Your task to perform on an android device: toggle improve location accuracy Image 0: 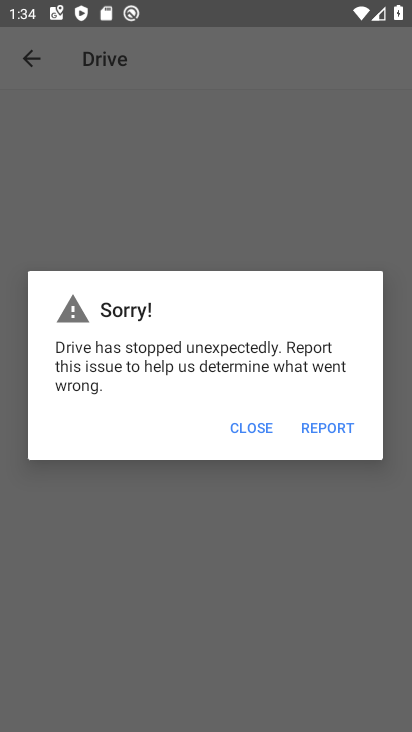
Step 0: press home button
Your task to perform on an android device: toggle improve location accuracy Image 1: 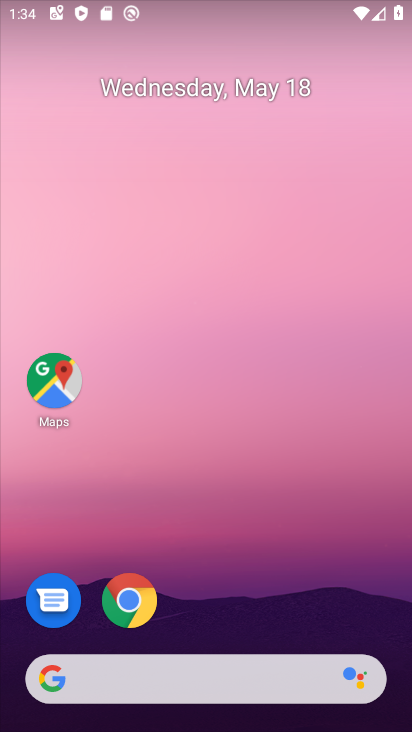
Step 1: drag from (226, 580) to (192, 254)
Your task to perform on an android device: toggle improve location accuracy Image 2: 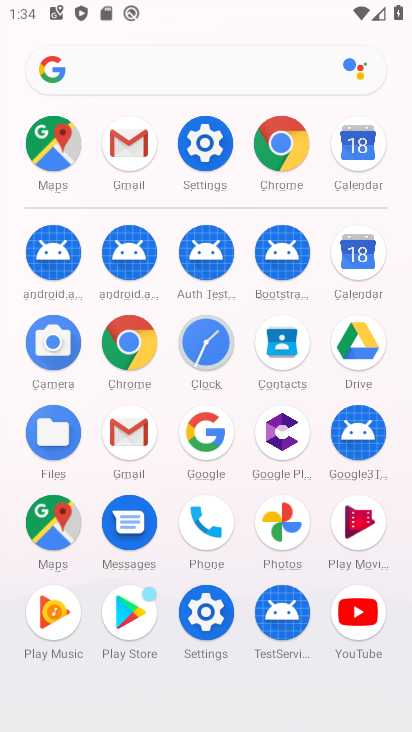
Step 2: click (206, 611)
Your task to perform on an android device: toggle improve location accuracy Image 3: 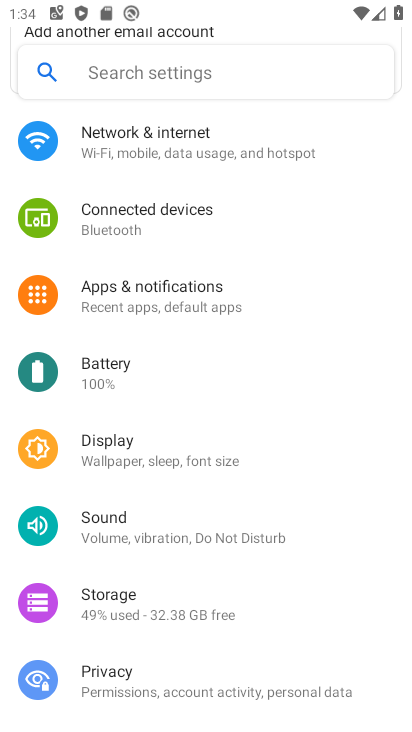
Step 3: drag from (172, 579) to (234, 492)
Your task to perform on an android device: toggle improve location accuracy Image 4: 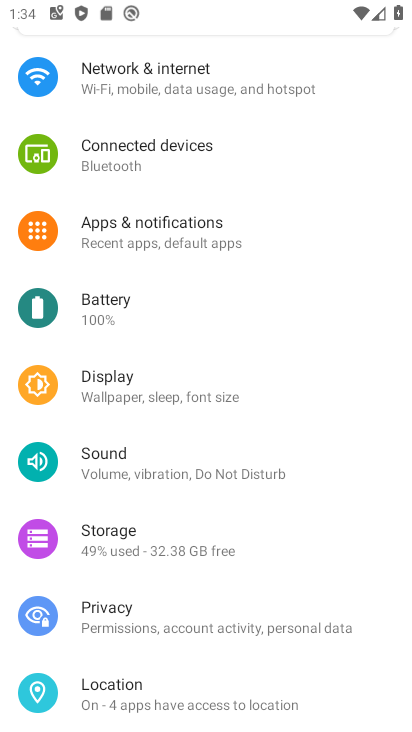
Step 4: drag from (181, 570) to (220, 473)
Your task to perform on an android device: toggle improve location accuracy Image 5: 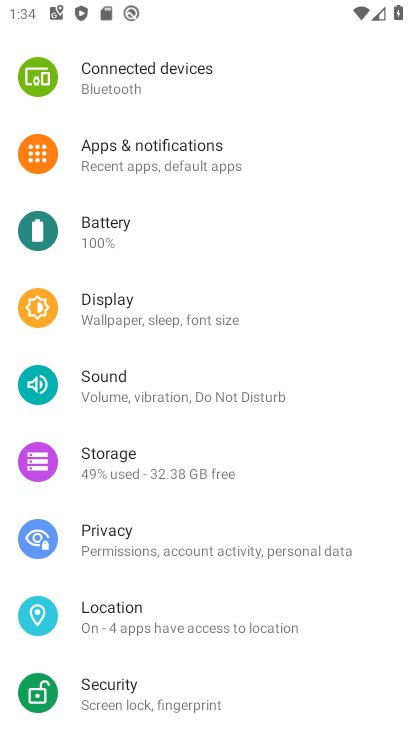
Step 5: drag from (156, 593) to (250, 490)
Your task to perform on an android device: toggle improve location accuracy Image 6: 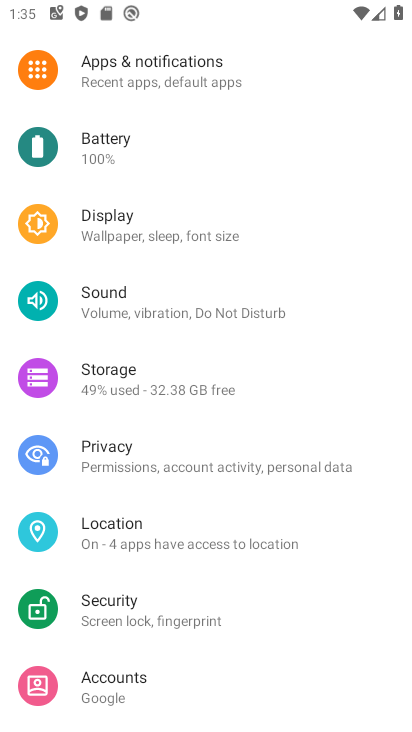
Step 6: click (159, 539)
Your task to perform on an android device: toggle improve location accuracy Image 7: 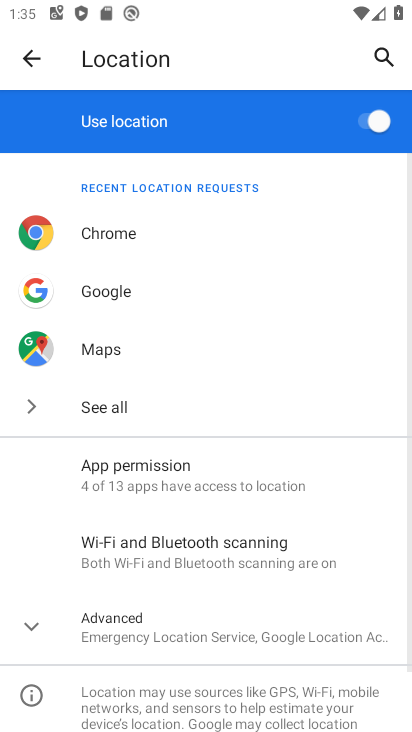
Step 7: drag from (171, 598) to (231, 485)
Your task to perform on an android device: toggle improve location accuracy Image 8: 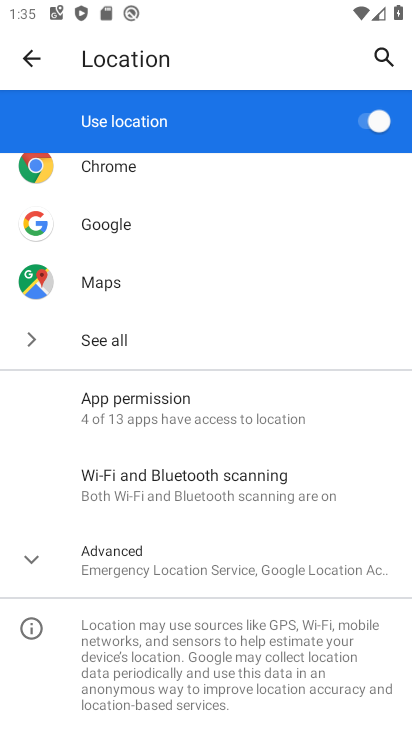
Step 8: click (218, 561)
Your task to perform on an android device: toggle improve location accuracy Image 9: 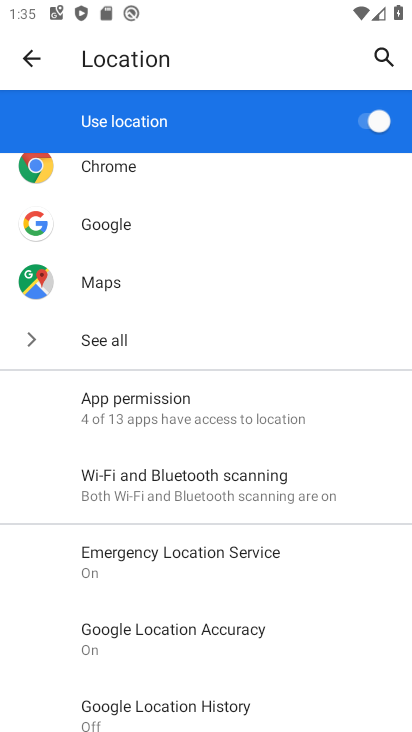
Step 9: drag from (175, 585) to (212, 524)
Your task to perform on an android device: toggle improve location accuracy Image 10: 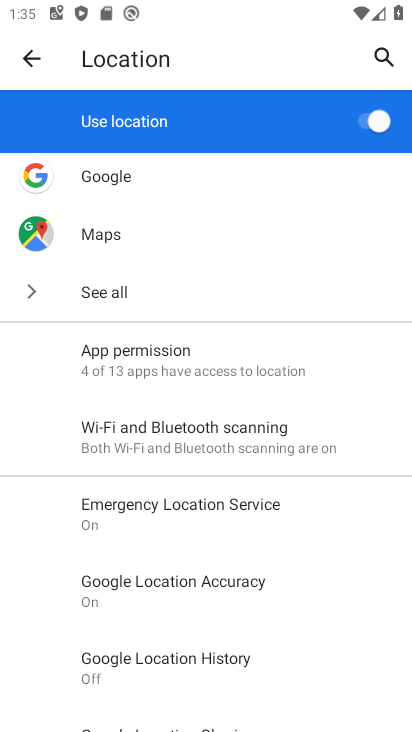
Step 10: click (169, 581)
Your task to perform on an android device: toggle improve location accuracy Image 11: 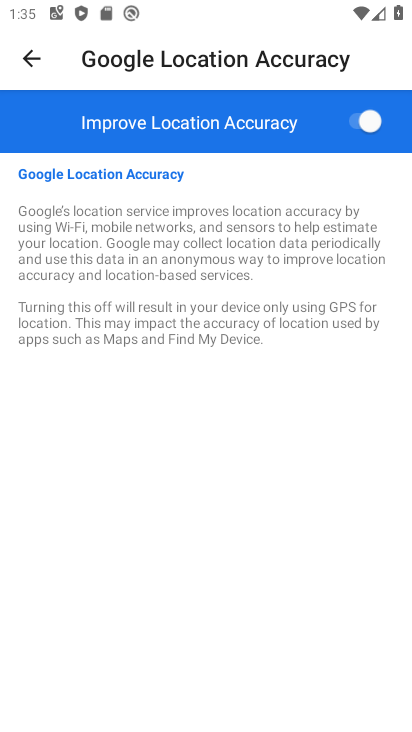
Step 11: click (367, 128)
Your task to perform on an android device: toggle improve location accuracy Image 12: 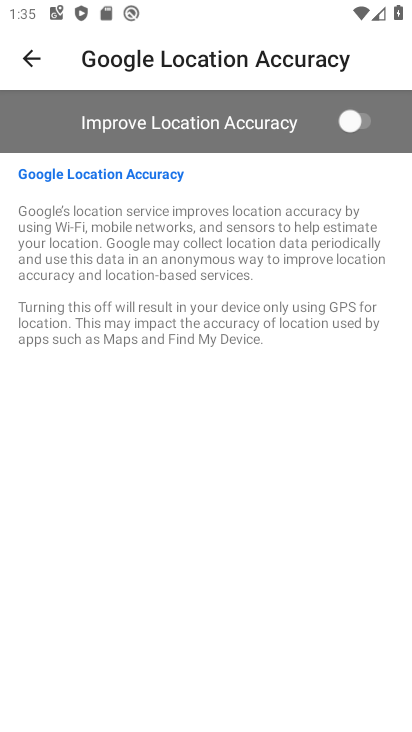
Step 12: task complete